Your task to perform on an android device: open app "Lyft - Rideshare, Bikes, Scooters & Transit" (install if not already installed) Image 0: 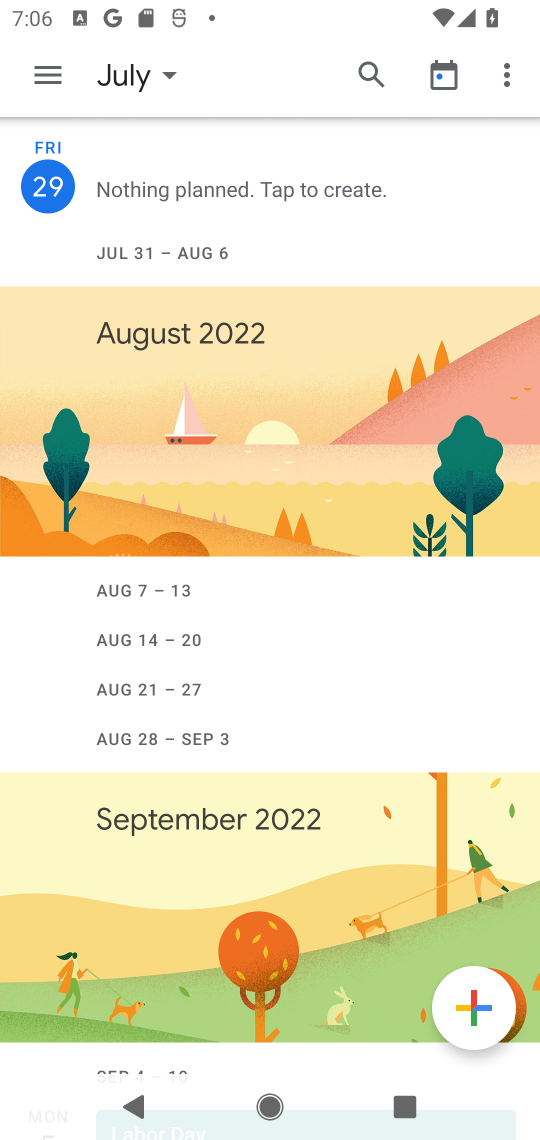
Step 0: press home button
Your task to perform on an android device: open app "Lyft - Rideshare, Bikes, Scooters & Transit" (install if not already installed) Image 1: 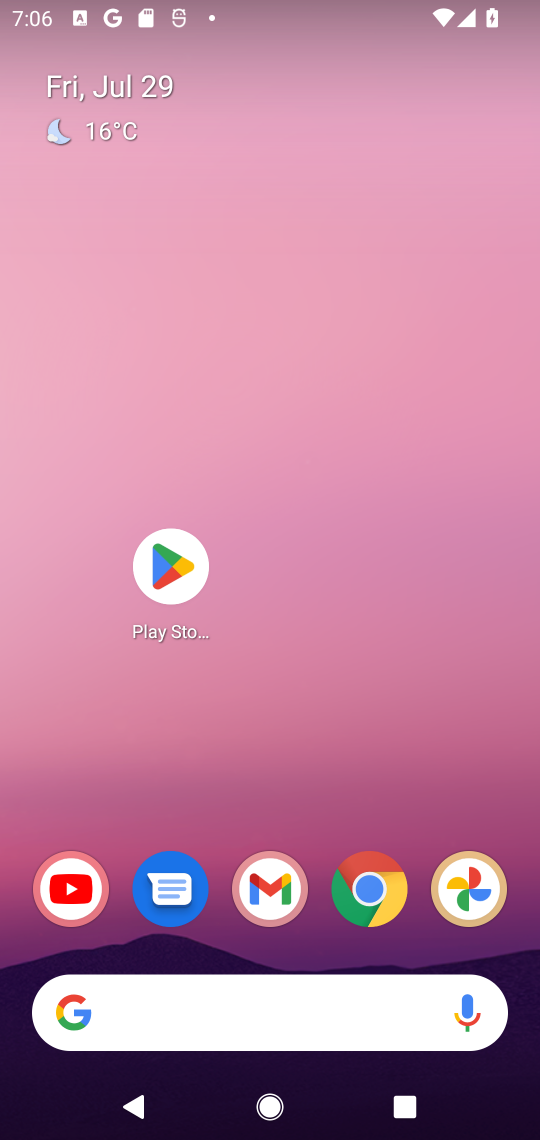
Step 1: click (163, 564)
Your task to perform on an android device: open app "Lyft - Rideshare, Bikes, Scooters & Transit" (install if not already installed) Image 2: 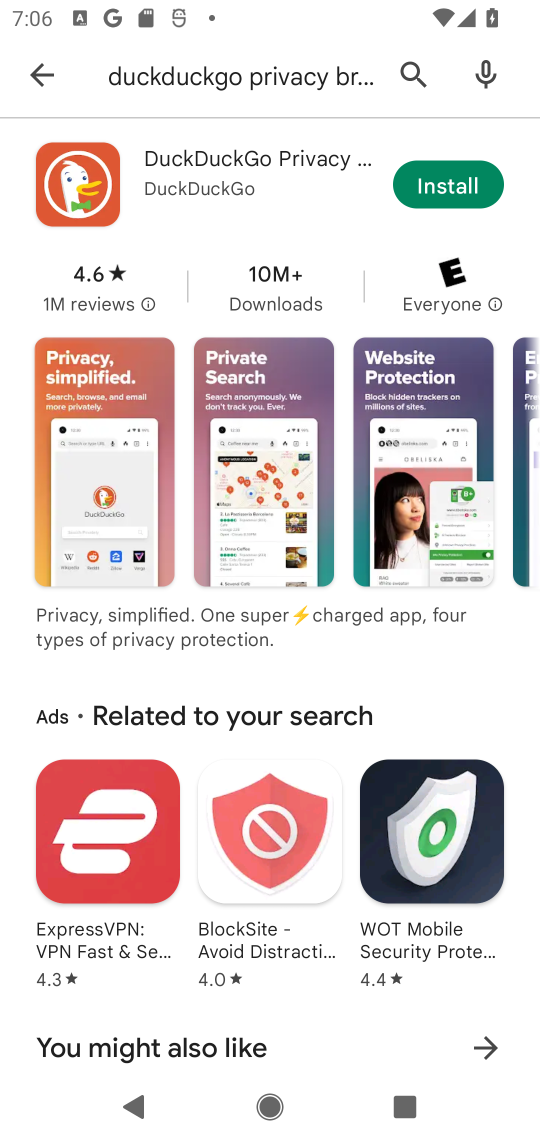
Step 2: click (408, 75)
Your task to perform on an android device: open app "Lyft - Rideshare, Bikes, Scooters & Transit" (install if not already installed) Image 3: 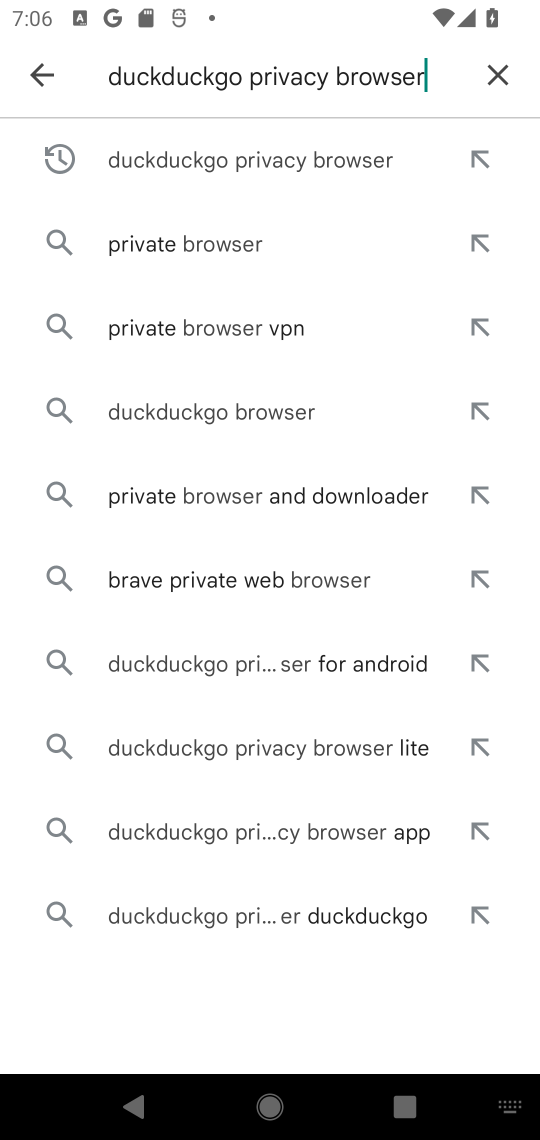
Step 3: click (507, 73)
Your task to perform on an android device: open app "Lyft - Rideshare, Bikes, Scooters & Transit" (install if not already installed) Image 4: 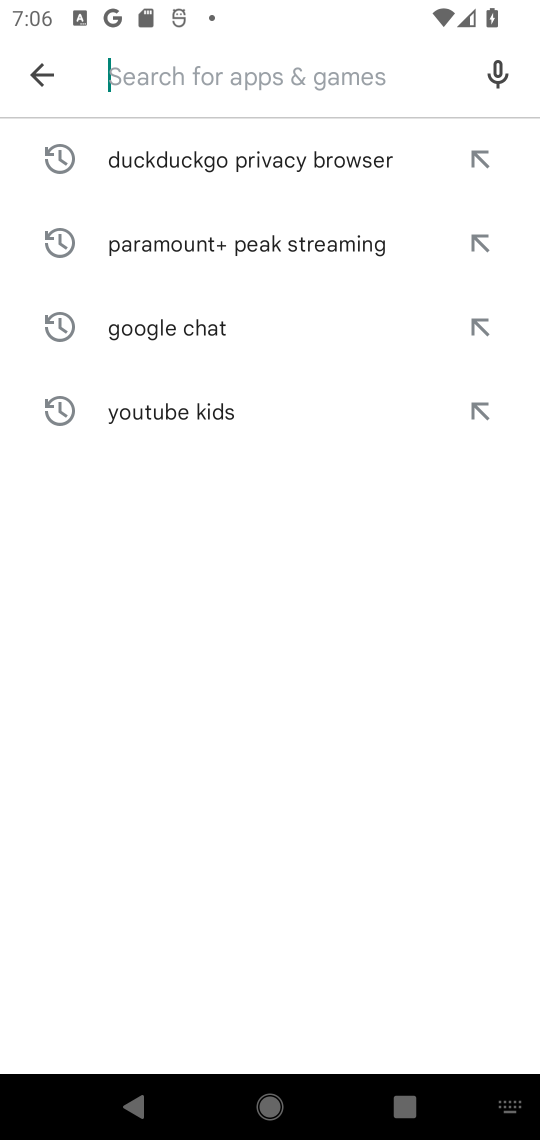
Step 4: type "Lyft - Rideshare, Bikes, Scooters & Transit"
Your task to perform on an android device: open app "Lyft - Rideshare, Bikes, Scooters & Transit" (install if not already installed) Image 5: 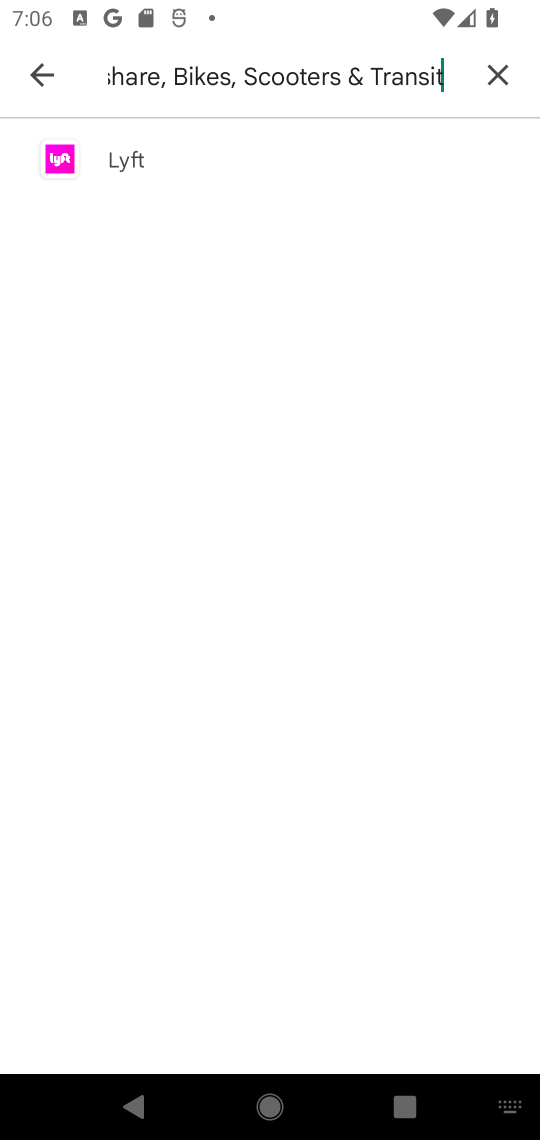
Step 5: click (129, 160)
Your task to perform on an android device: open app "Lyft - Rideshare, Bikes, Scooters & Transit" (install if not already installed) Image 6: 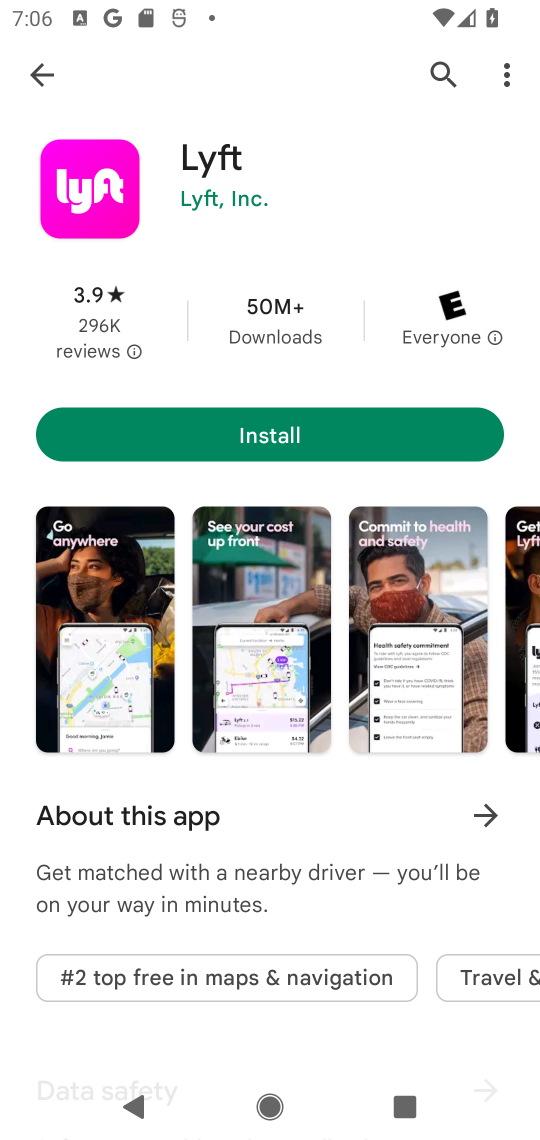
Step 6: click (267, 428)
Your task to perform on an android device: open app "Lyft - Rideshare, Bikes, Scooters & Transit" (install if not already installed) Image 7: 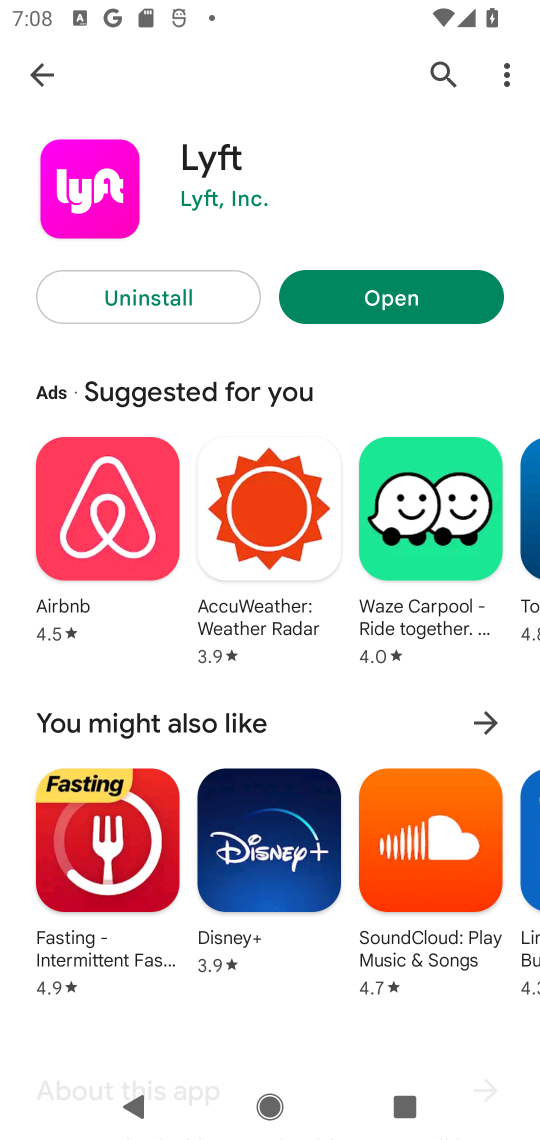
Step 7: click (398, 289)
Your task to perform on an android device: open app "Lyft - Rideshare, Bikes, Scooters & Transit" (install if not already installed) Image 8: 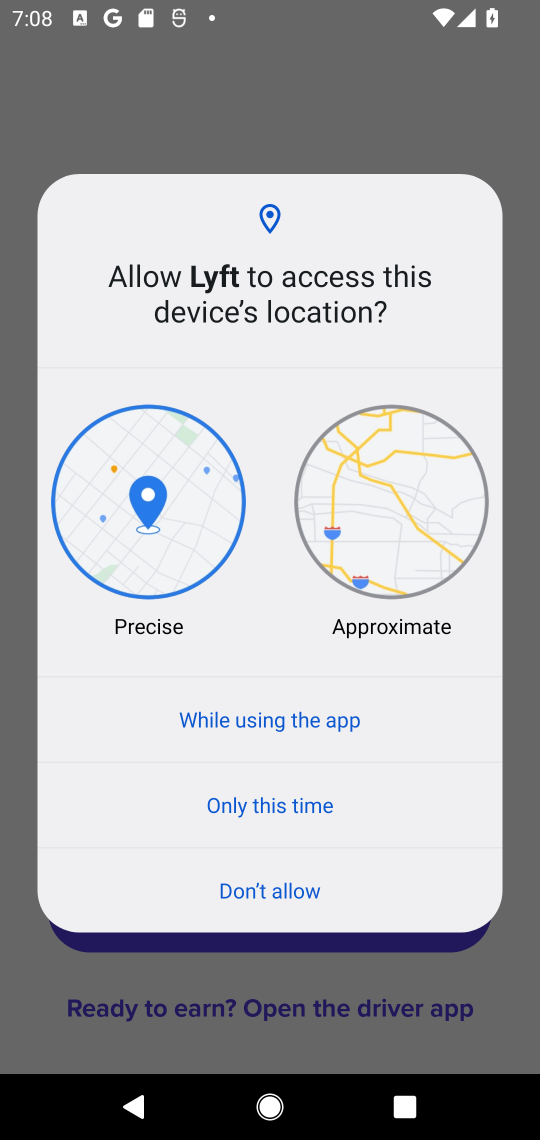
Step 8: task complete